Your task to perform on an android device: install app "Grab" Image 0: 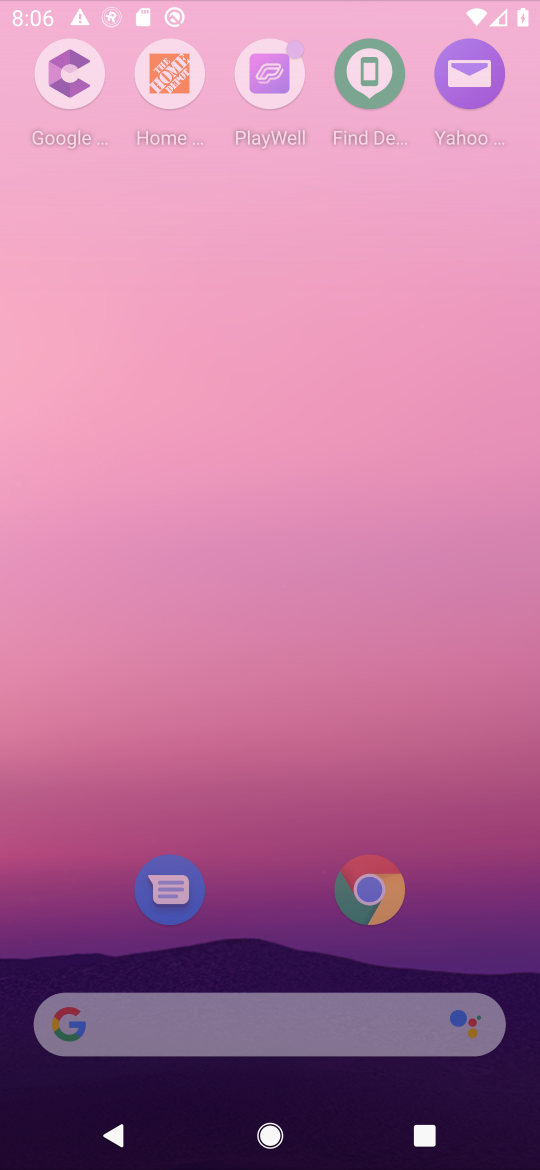
Step 0: press home button
Your task to perform on an android device: install app "Grab" Image 1: 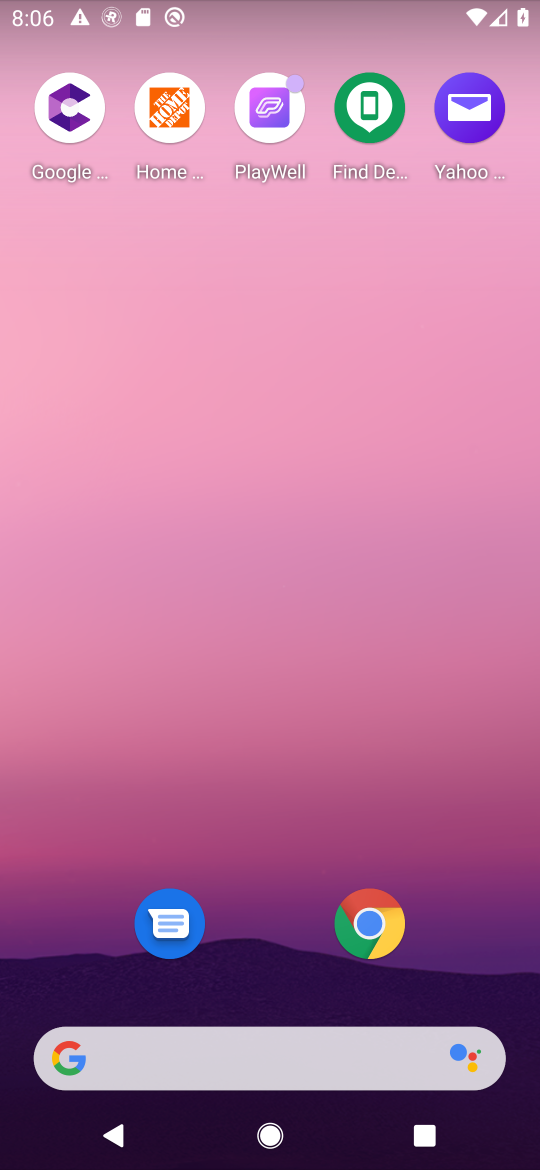
Step 1: drag from (399, 735) to (349, 163)
Your task to perform on an android device: install app "Grab" Image 2: 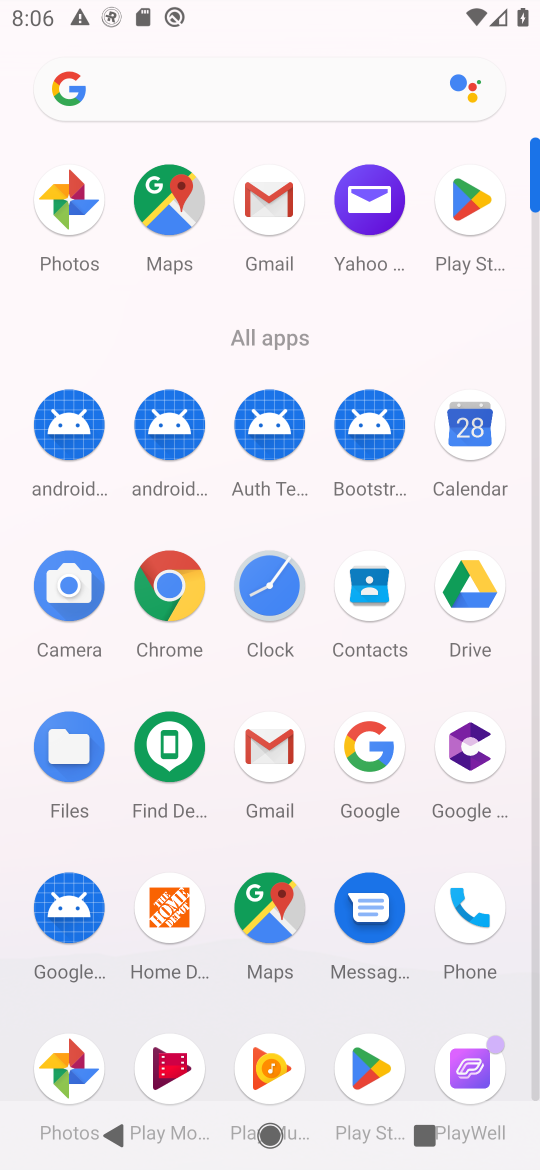
Step 2: click (479, 207)
Your task to perform on an android device: install app "Grab" Image 3: 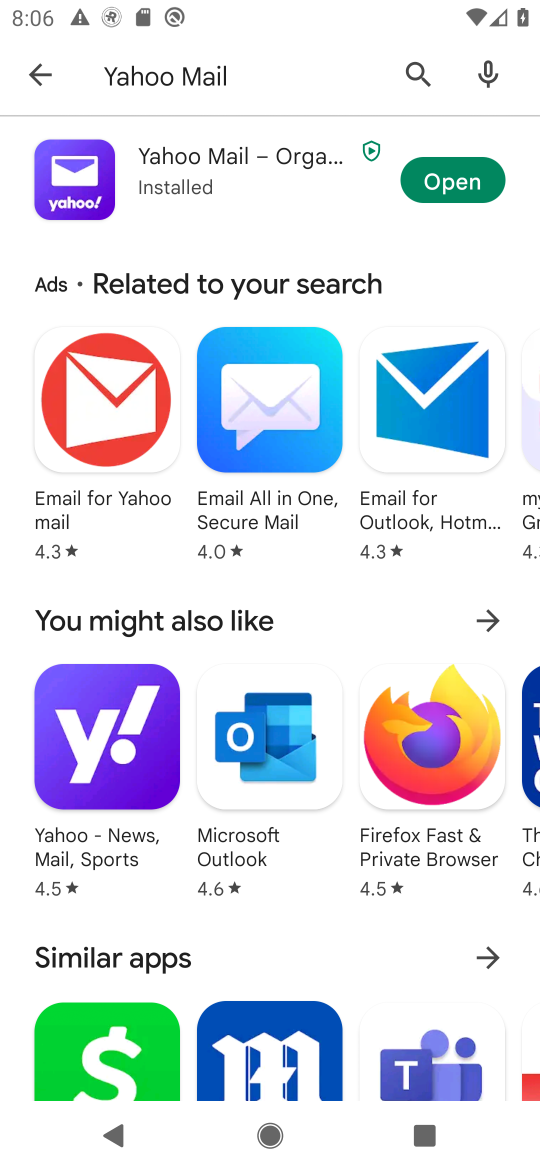
Step 3: click (357, 92)
Your task to perform on an android device: install app "Grab" Image 4: 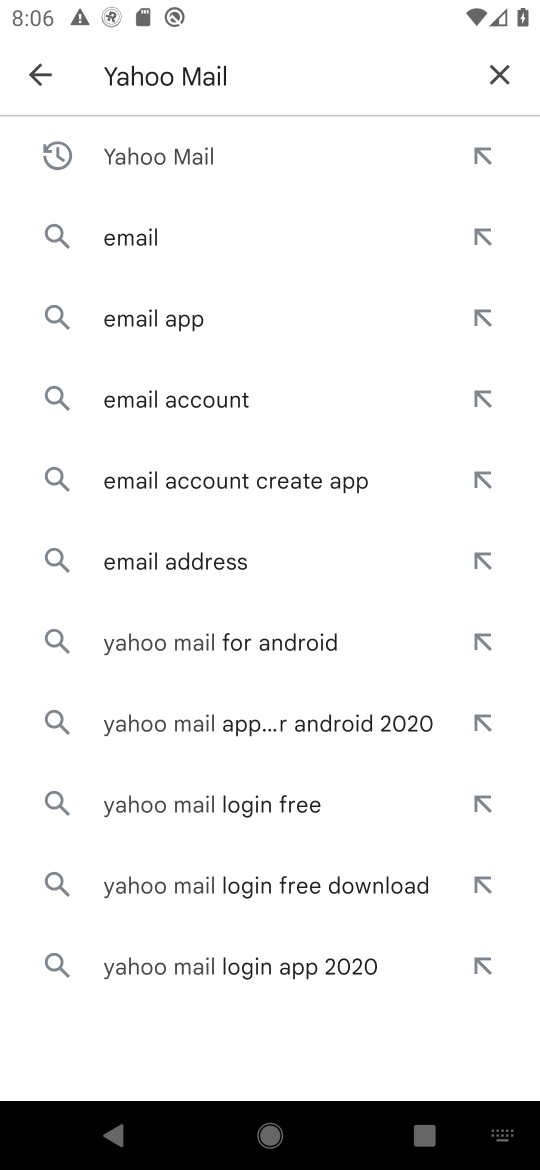
Step 4: click (505, 75)
Your task to perform on an android device: install app "Grab" Image 5: 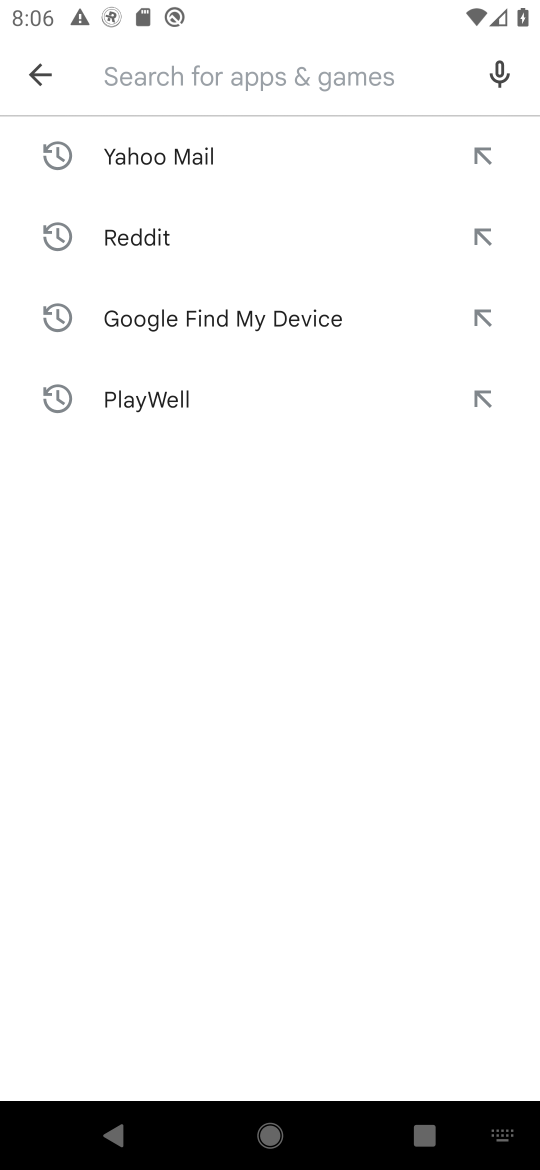
Step 5: type "Grab"
Your task to perform on an android device: install app "Grab" Image 6: 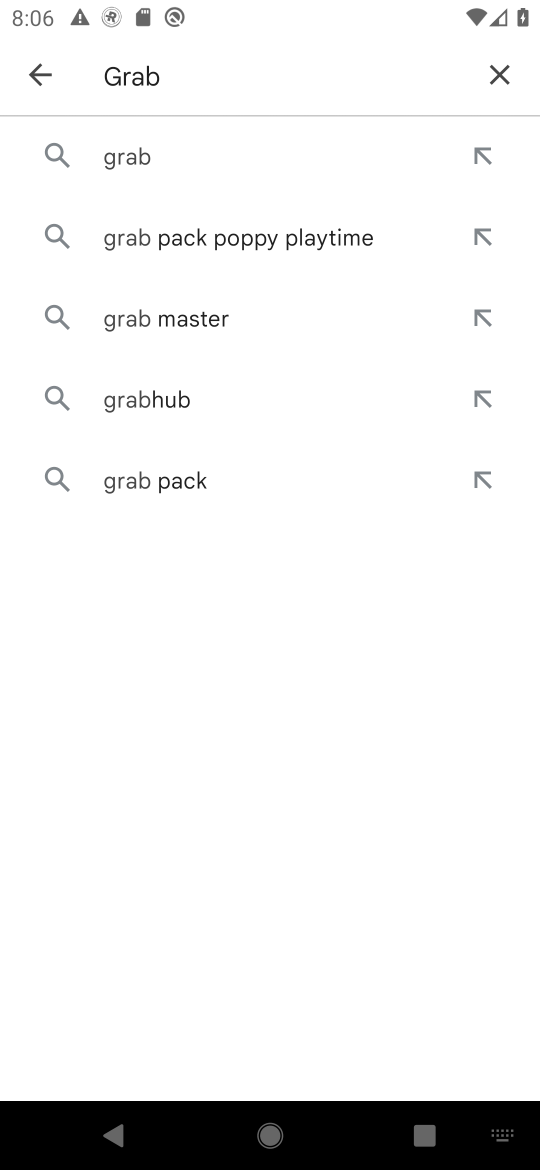
Step 6: press enter
Your task to perform on an android device: install app "Grab" Image 7: 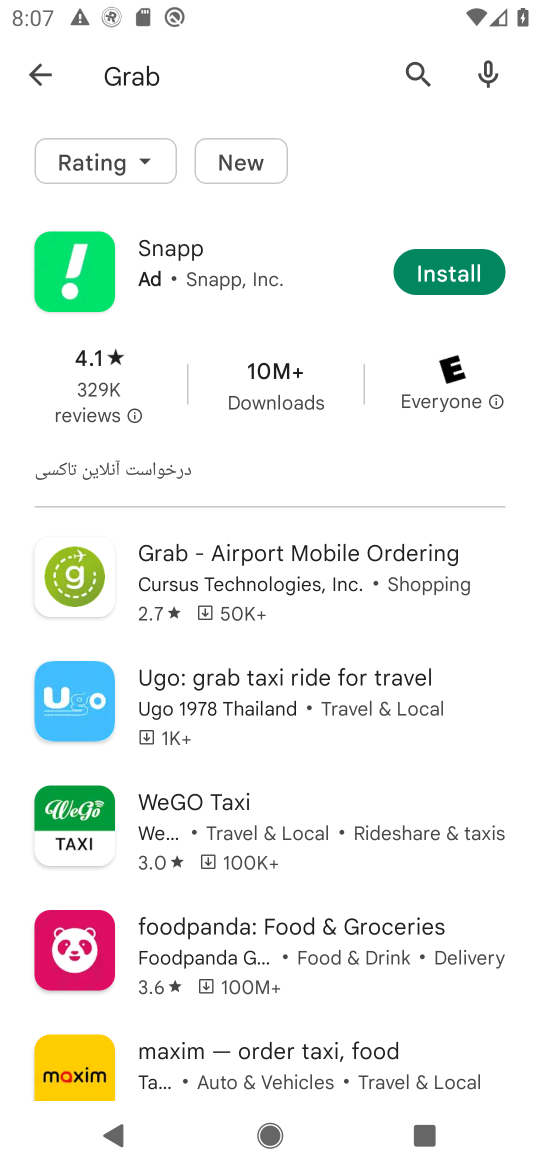
Step 7: click (171, 579)
Your task to perform on an android device: install app "Grab" Image 8: 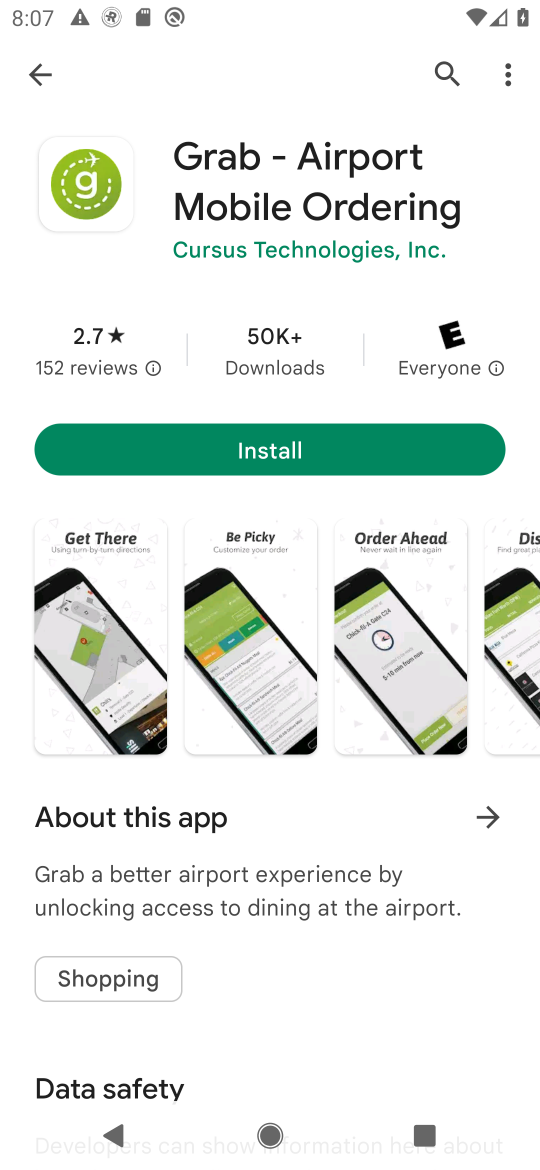
Step 8: click (331, 432)
Your task to perform on an android device: install app "Grab" Image 9: 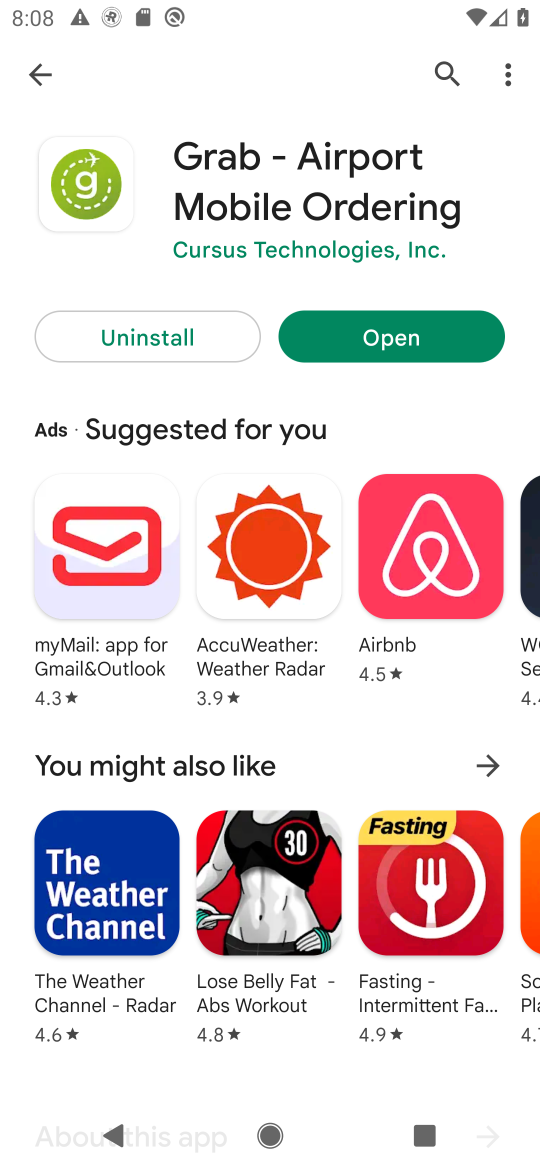
Step 9: task complete